Your task to perform on an android device: turn off location history Image 0: 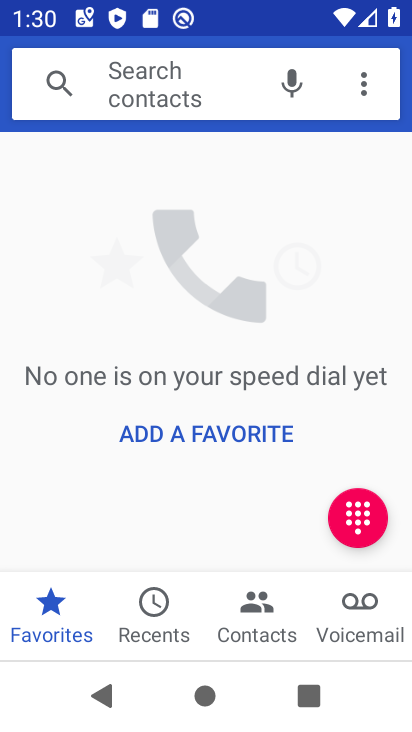
Step 0: press home button
Your task to perform on an android device: turn off location history Image 1: 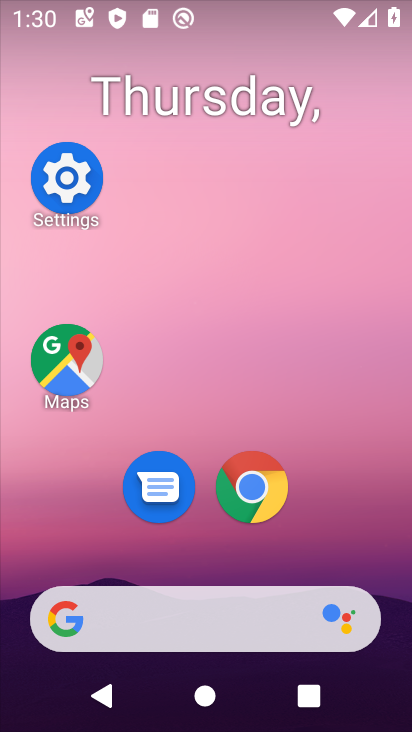
Step 1: click (78, 157)
Your task to perform on an android device: turn off location history Image 2: 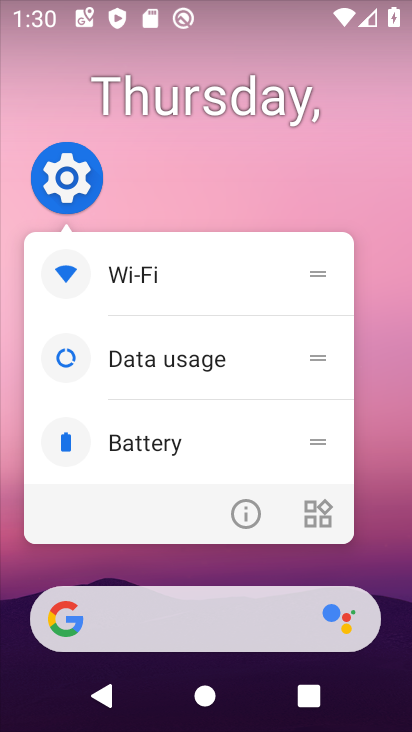
Step 2: click (73, 178)
Your task to perform on an android device: turn off location history Image 3: 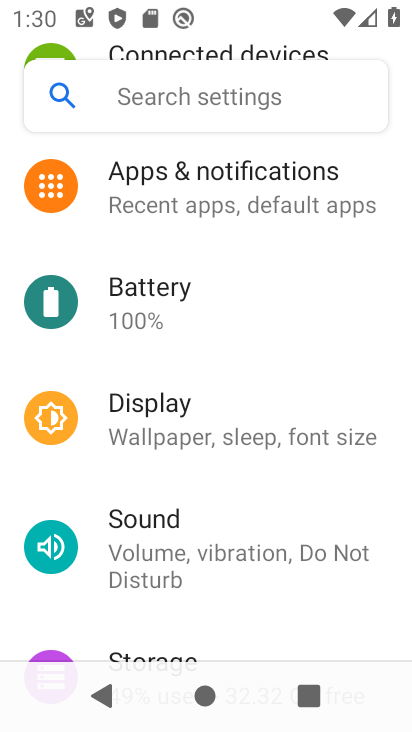
Step 3: drag from (312, 542) to (228, 209)
Your task to perform on an android device: turn off location history Image 4: 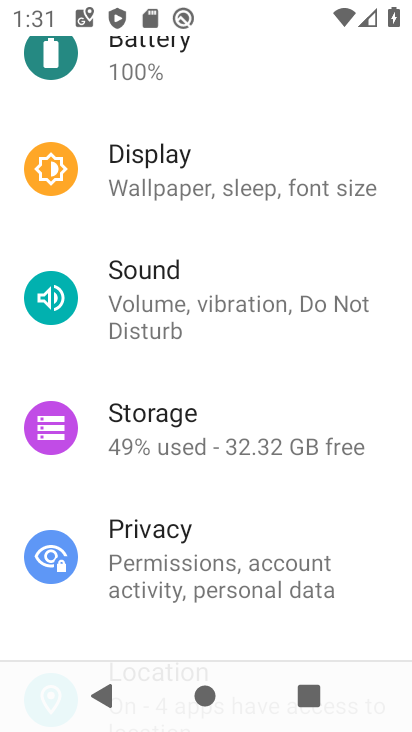
Step 4: drag from (283, 492) to (159, 65)
Your task to perform on an android device: turn off location history Image 5: 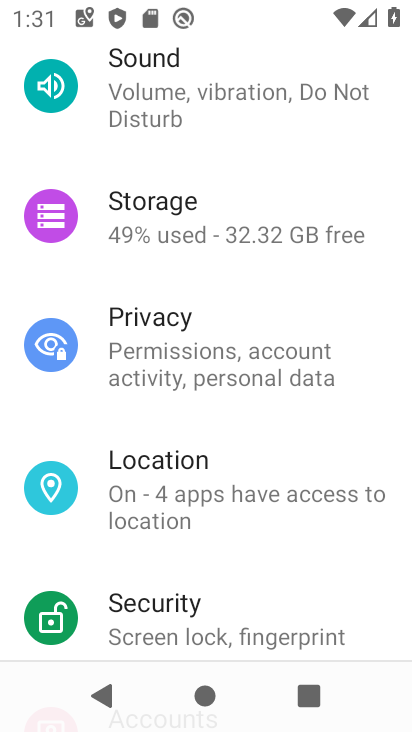
Step 5: click (302, 485)
Your task to perform on an android device: turn off location history Image 6: 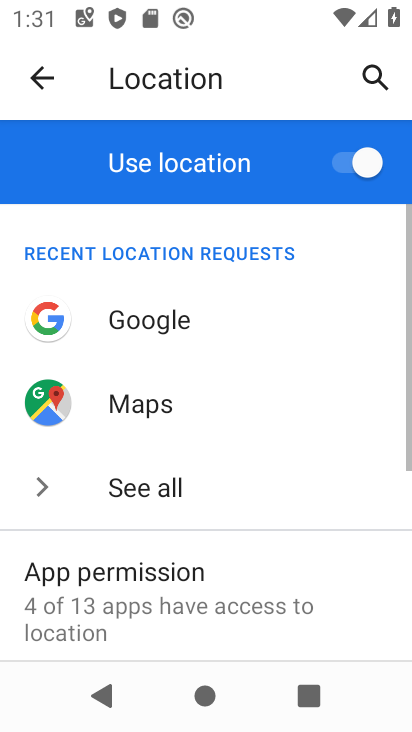
Step 6: drag from (299, 478) to (207, 126)
Your task to perform on an android device: turn off location history Image 7: 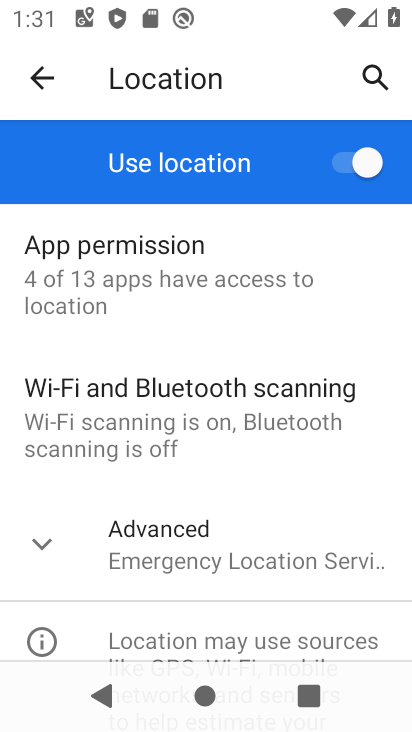
Step 7: click (254, 525)
Your task to perform on an android device: turn off location history Image 8: 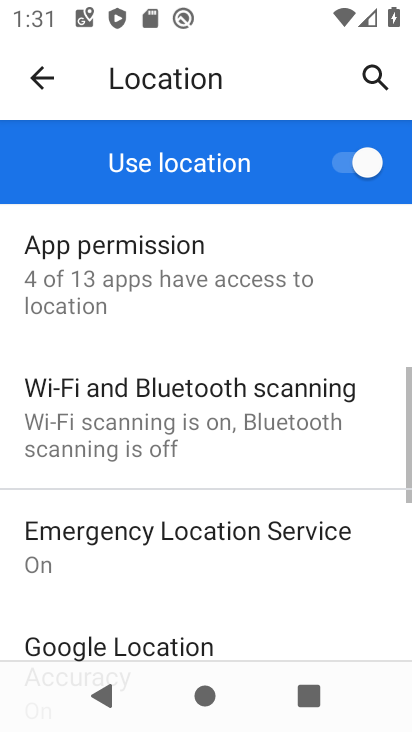
Step 8: drag from (250, 511) to (192, 177)
Your task to perform on an android device: turn off location history Image 9: 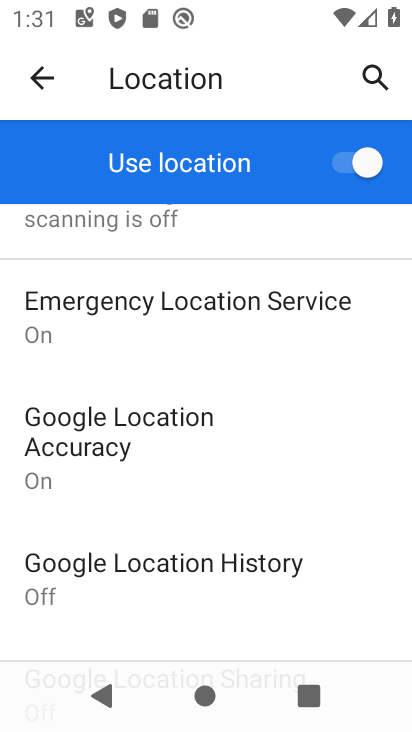
Step 9: click (279, 542)
Your task to perform on an android device: turn off location history Image 10: 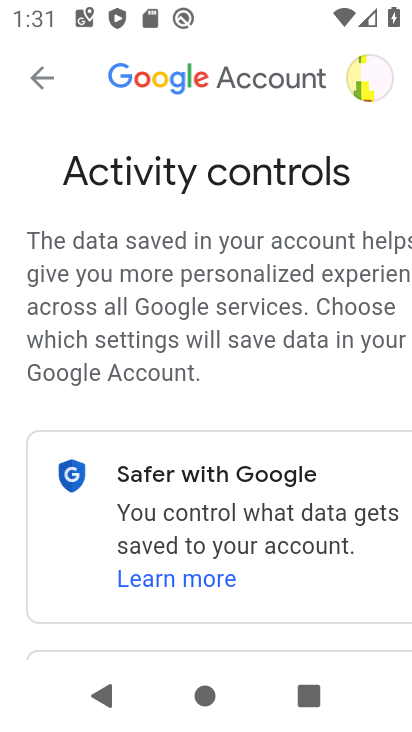
Step 10: drag from (336, 548) to (190, 83)
Your task to perform on an android device: turn off location history Image 11: 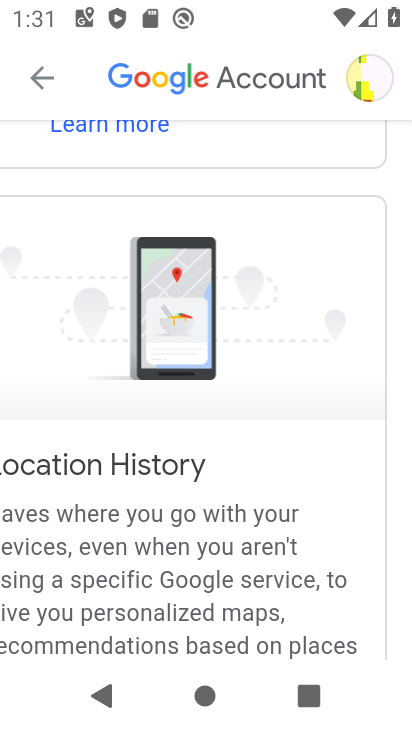
Step 11: drag from (355, 544) to (218, 100)
Your task to perform on an android device: turn off location history Image 12: 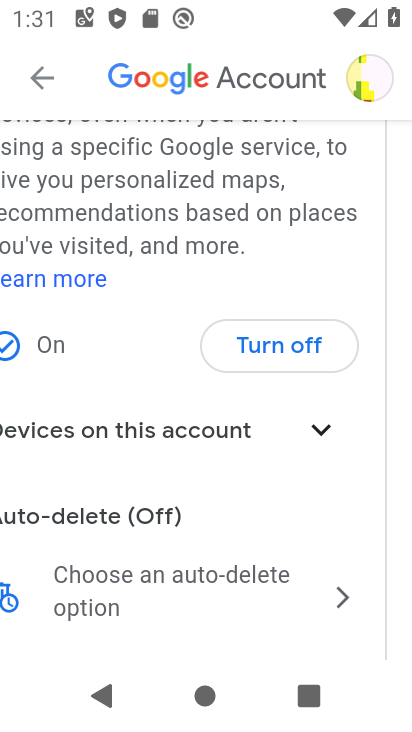
Step 12: click (276, 337)
Your task to perform on an android device: turn off location history Image 13: 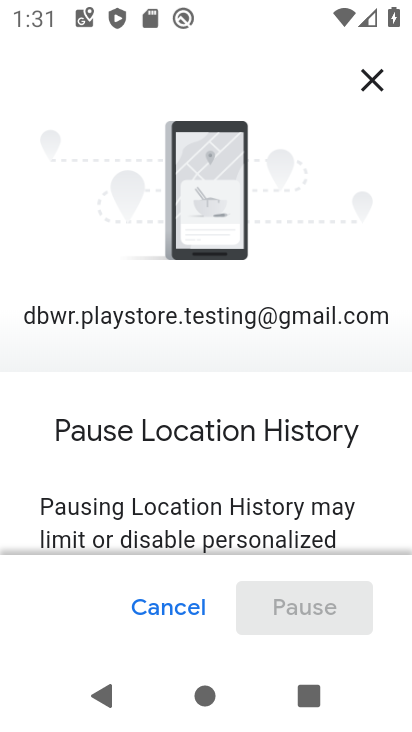
Step 13: drag from (346, 534) to (231, 110)
Your task to perform on an android device: turn off location history Image 14: 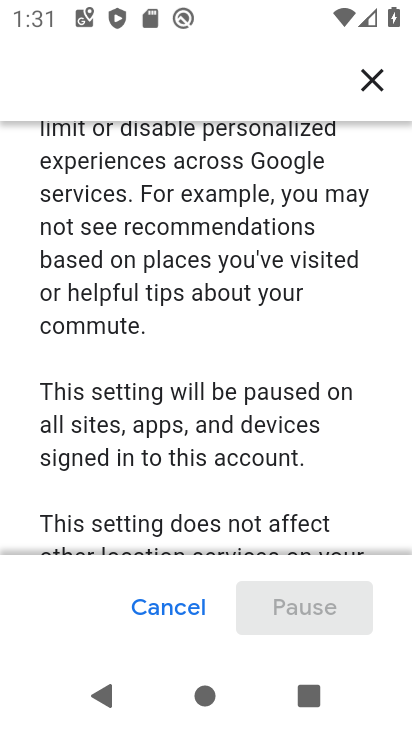
Step 14: drag from (273, 374) to (200, 92)
Your task to perform on an android device: turn off location history Image 15: 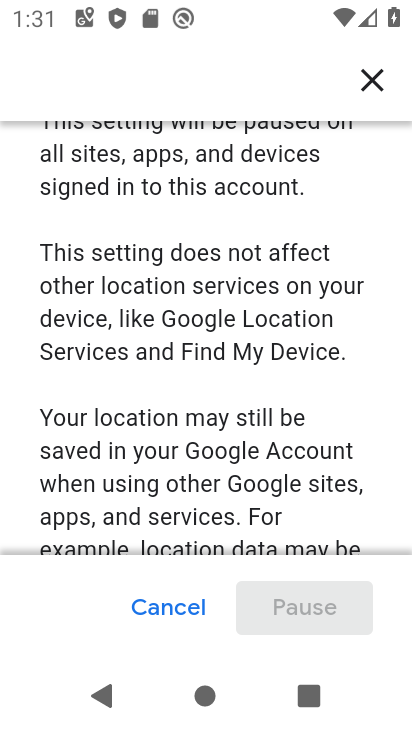
Step 15: drag from (365, 485) to (218, 69)
Your task to perform on an android device: turn off location history Image 16: 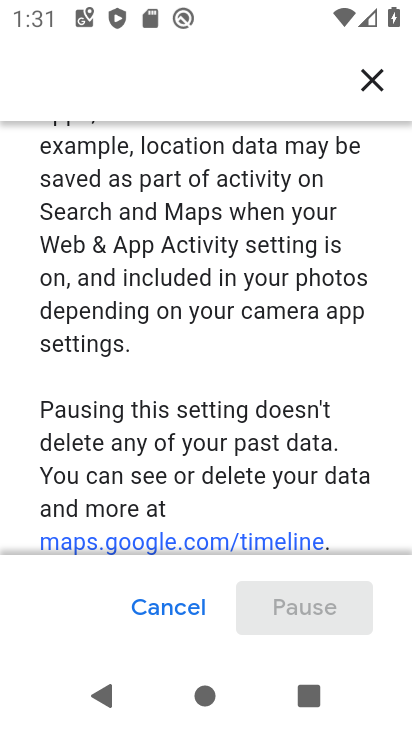
Step 16: drag from (247, 185) to (210, 68)
Your task to perform on an android device: turn off location history Image 17: 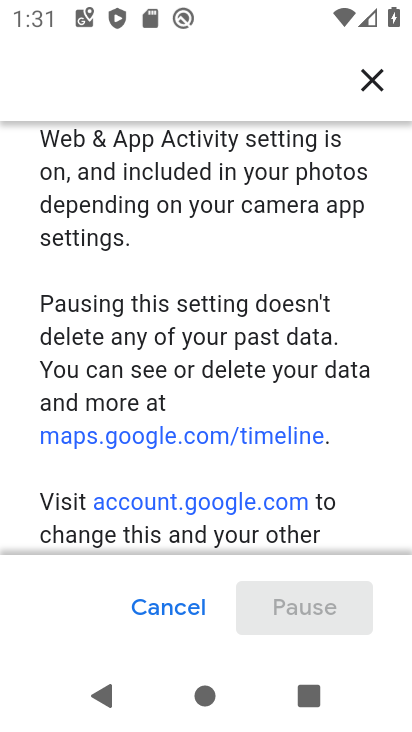
Step 17: drag from (326, 437) to (226, 91)
Your task to perform on an android device: turn off location history Image 18: 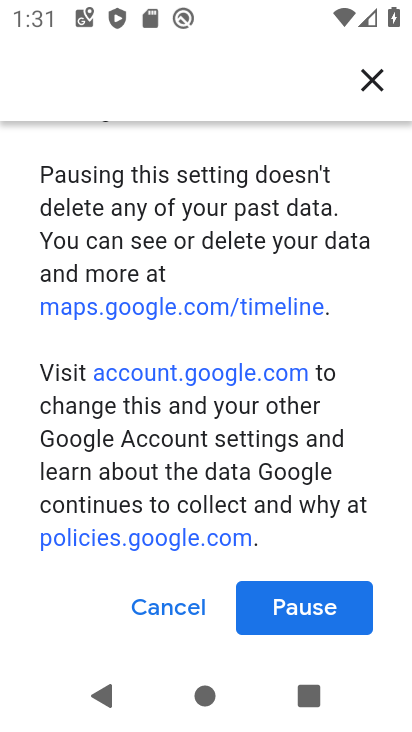
Step 18: click (362, 594)
Your task to perform on an android device: turn off location history Image 19: 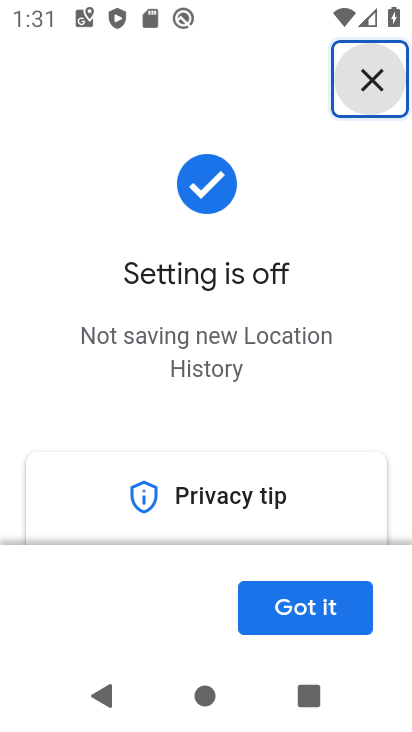
Step 19: click (327, 563)
Your task to perform on an android device: turn off location history Image 20: 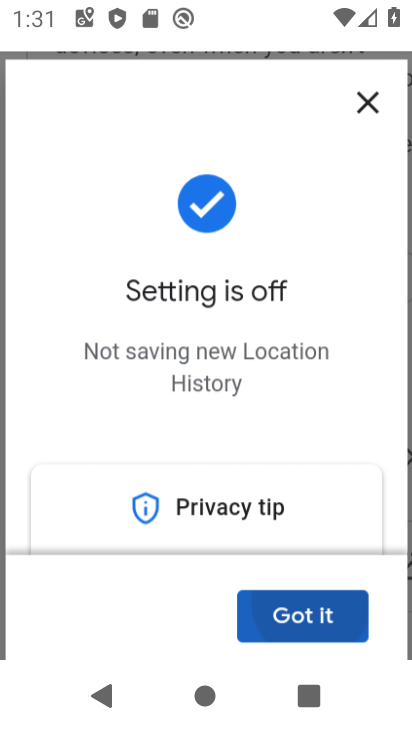
Step 20: click (316, 592)
Your task to perform on an android device: turn off location history Image 21: 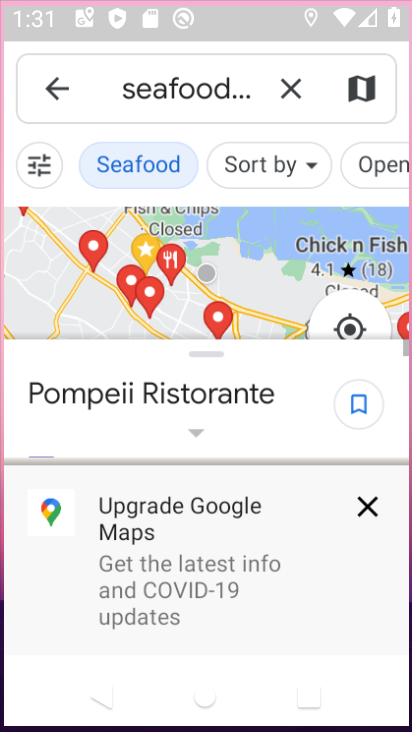
Step 21: task complete